Your task to perform on an android device: Open settings on Google Maps Image 0: 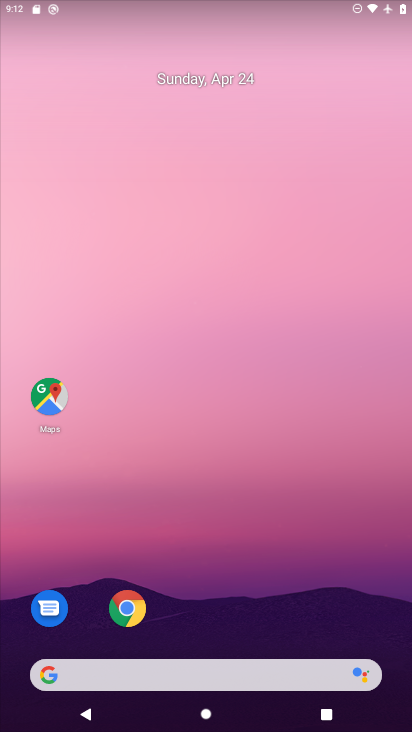
Step 0: click (149, 597)
Your task to perform on an android device: Open settings on Google Maps Image 1: 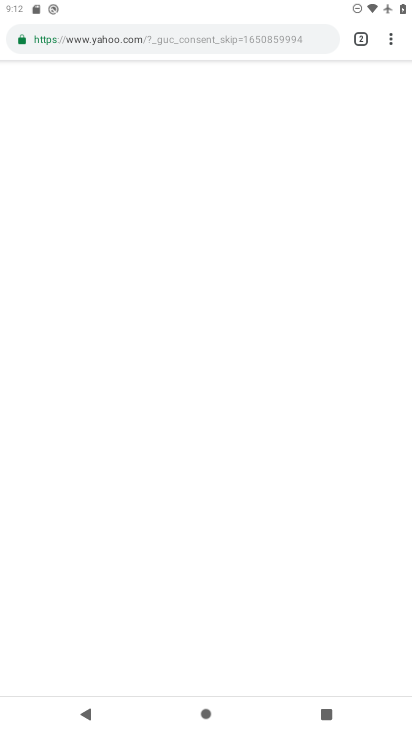
Step 1: press home button
Your task to perform on an android device: Open settings on Google Maps Image 2: 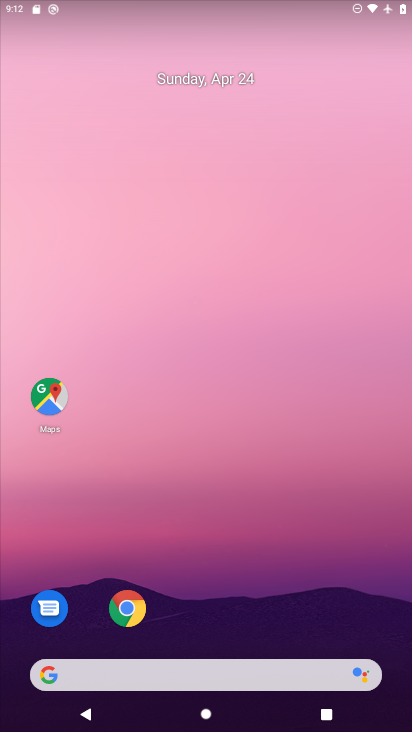
Step 2: click (59, 396)
Your task to perform on an android device: Open settings on Google Maps Image 3: 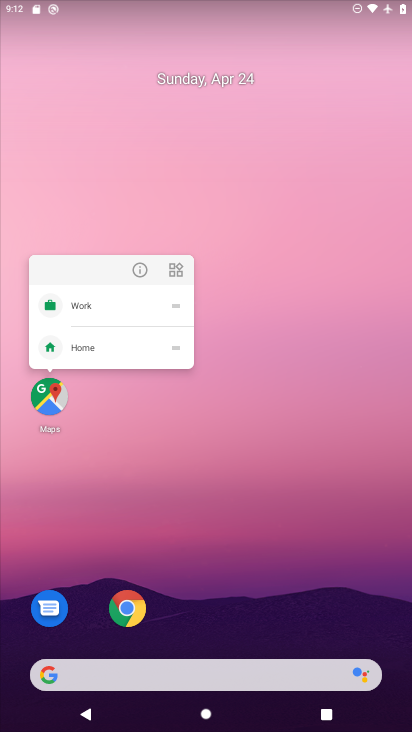
Step 3: click (59, 396)
Your task to perform on an android device: Open settings on Google Maps Image 4: 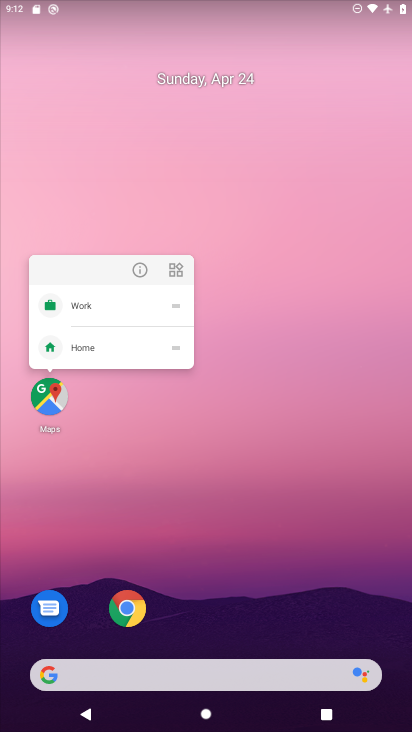
Step 4: click (59, 396)
Your task to perform on an android device: Open settings on Google Maps Image 5: 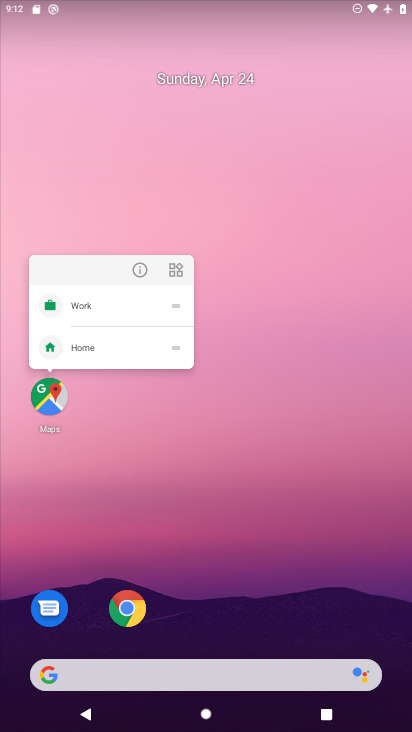
Step 5: click (51, 405)
Your task to perform on an android device: Open settings on Google Maps Image 6: 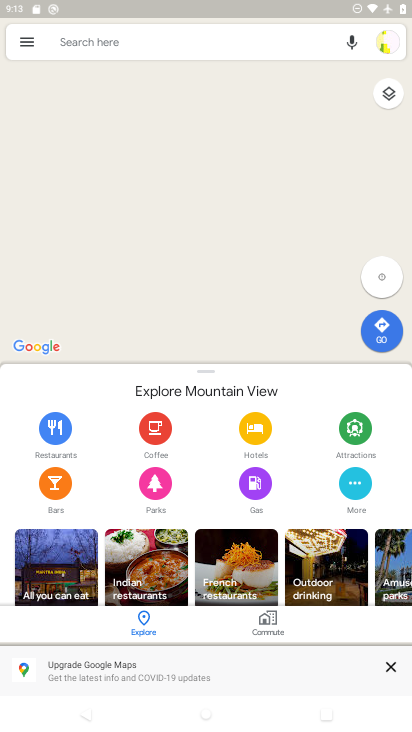
Step 6: click (30, 46)
Your task to perform on an android device: Open settings on Google Maps Image 7: 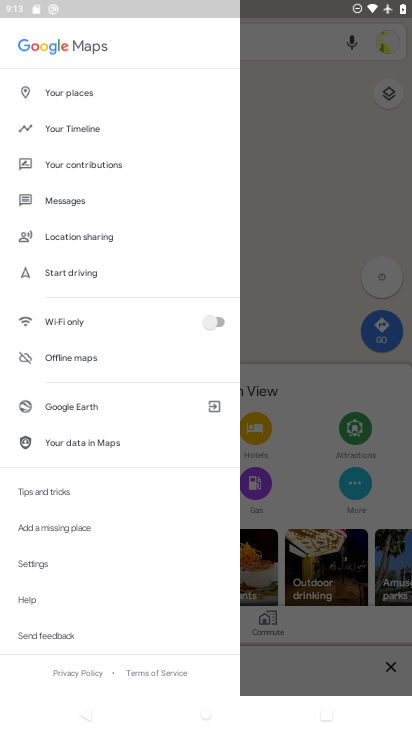
Step 7: click (31, 565)
Your task to perform on an android device: Open settings on Google Maps Image 8: 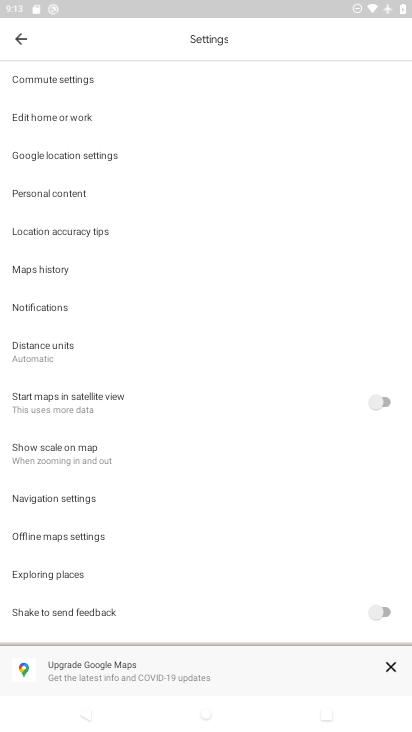
Step 8: task complete